Your task to perform on an android device: turn off location history Image 0: 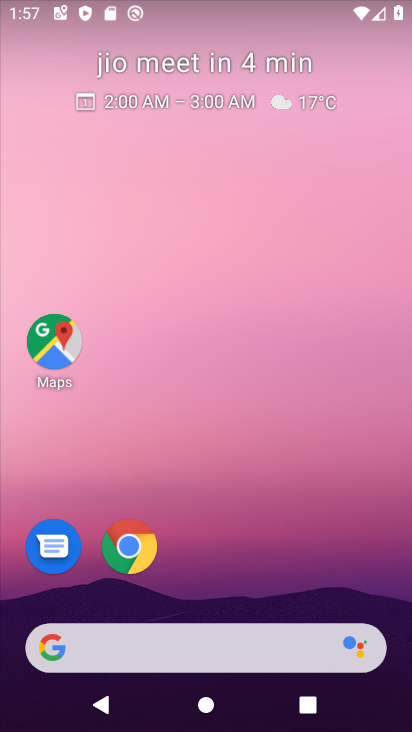
Step 0: drag from (260, 600) to (275, 68)
Your task to perform on an android device: turn off location history Image 1: 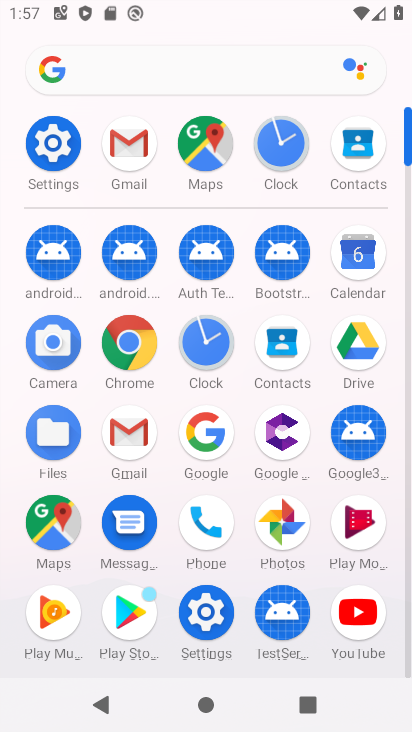
Step 1: click (199, 632)
Your task to perform on an android device: turn off location history Image 2: 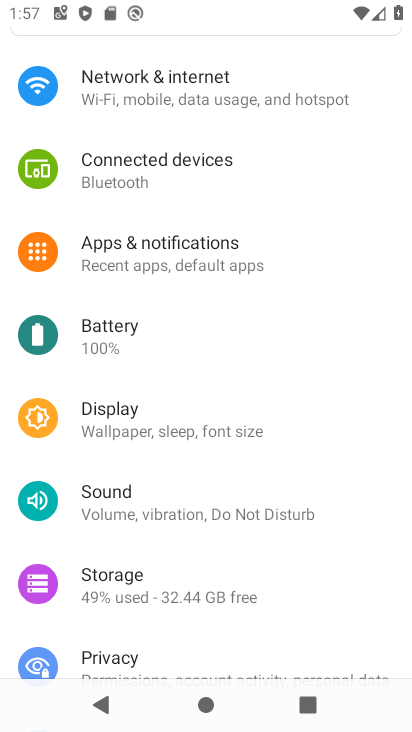
Step 2: drag from (209, 597) to (222, 201)
Your task to perform on an android device: turn off location history Image 3: 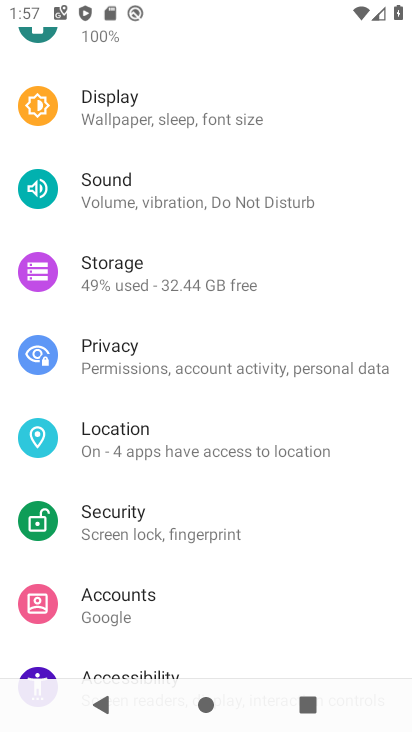
Step 3: click (187, 468)
Your task to perform on an android device: turn off location history Image 4: 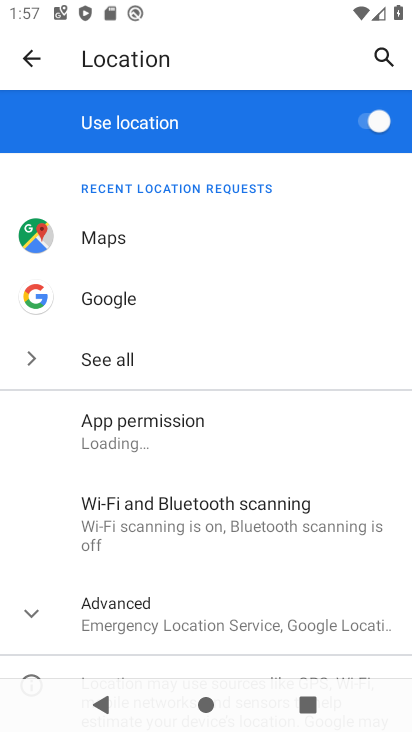
Step 4: drag from (178, 578) to (224, 345)
Your task to perform on an android device: turn off location history Image 5: 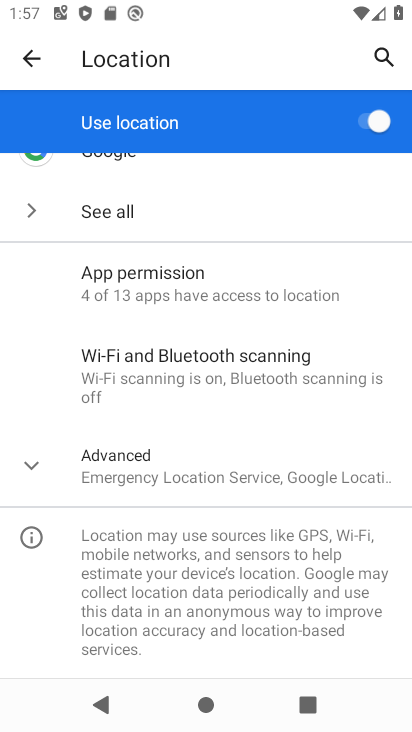
Step 5: click (158, 442)
Your task to perform on an android device: turn off location history Image 6: 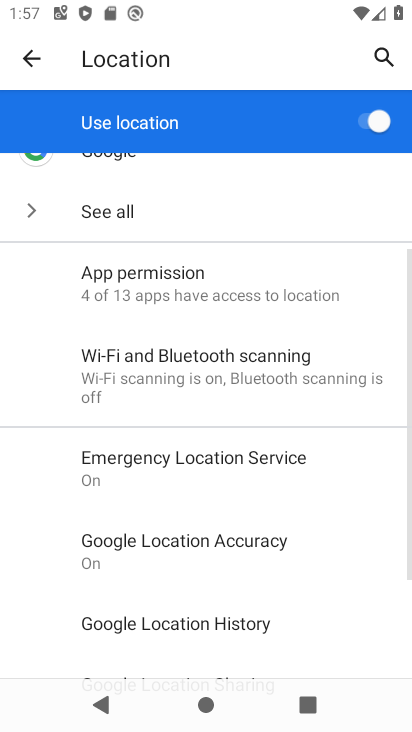
Step 6: drag from (206, 541) to (257, 381)
Your task to perform on an android device: turn off location history Image 7: 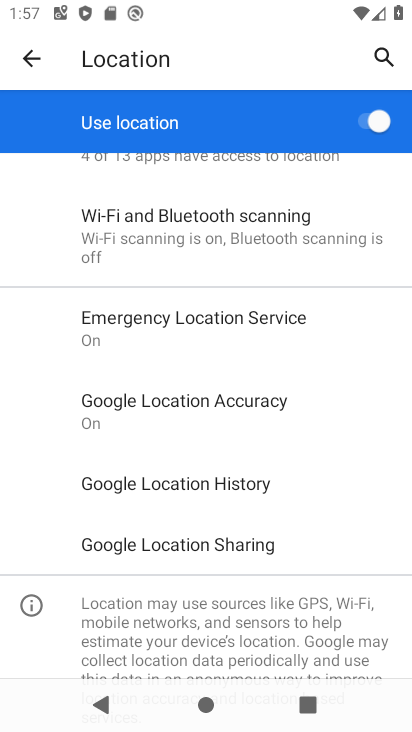
Step 7: click (283, 494)
Your task to perform on an android device: turn off location history Image 8: 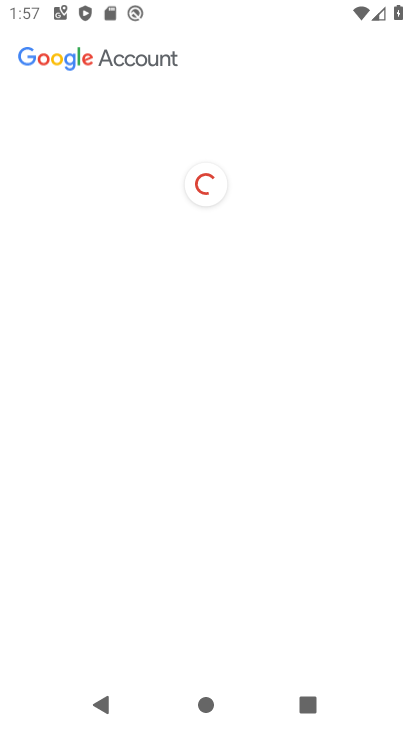
Step 8: task complete